Your task to perform on an android device: Go to Google Image 0: 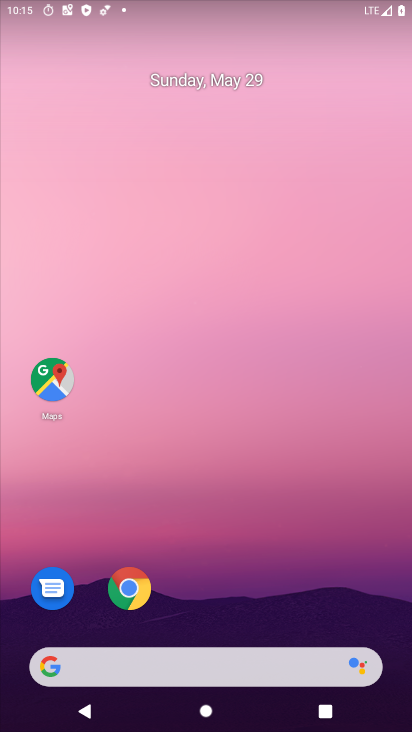
Step 0: click (241, 154)
Your task to perform on an android device: Go to Google Image 1: 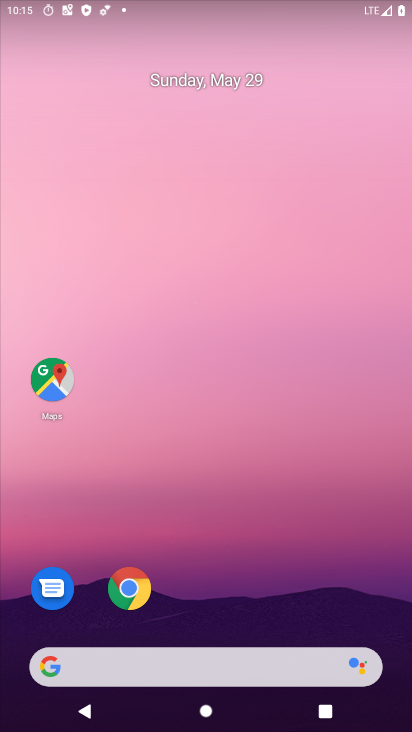
Step 1: drag from (238, 616) to (308, 0)
Your task to perform on an android device: Go to Google Image 2: 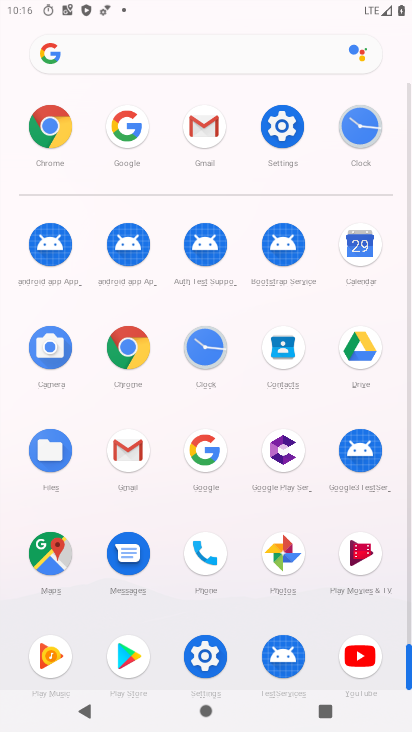
Step 2: click (201, 539)
Your task to perform on an android device: Go to Google Image 3: 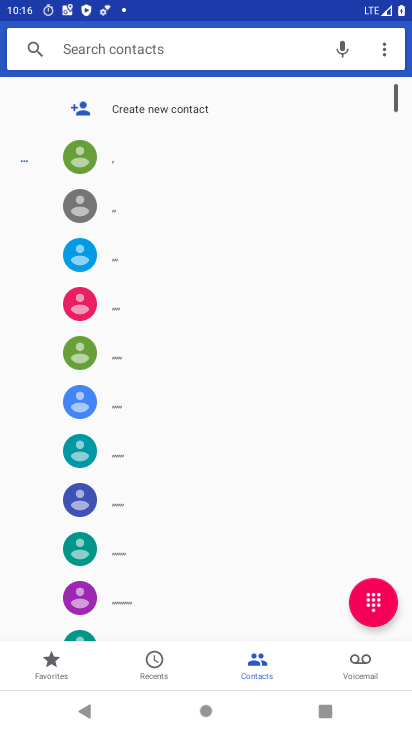
Step 3: press back button
Your task to perform on an android device: Go to Google Image 4: 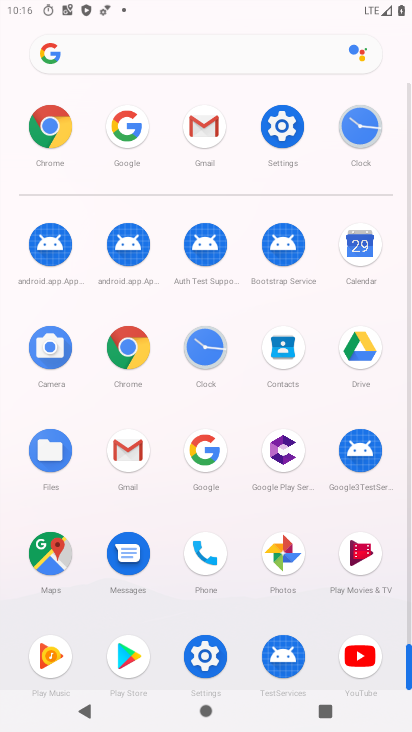
Step 4: click (209, 442)
Your task to perform on an android device: Go to Google Image 5: 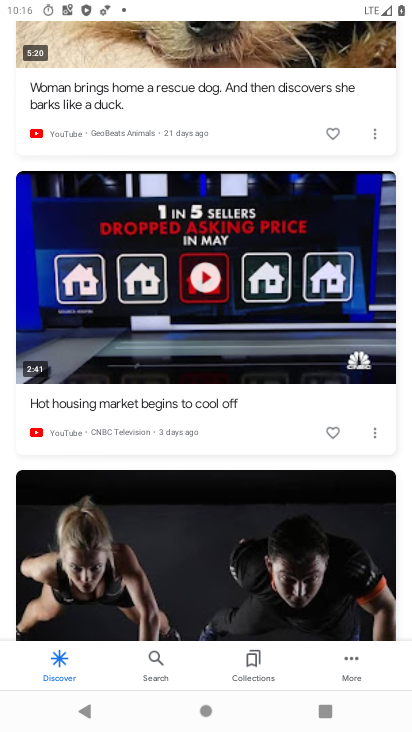
Step 5: task complete